Your task to perform on an android device: Open calendar and show me the fourth week of next month Image 0: 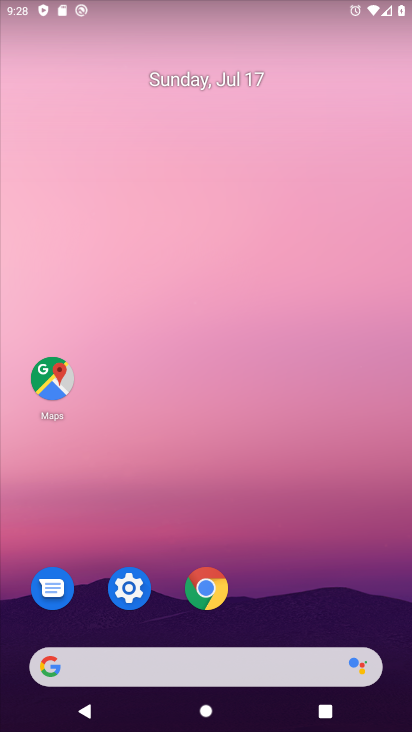
Step 0: drag from (255, 649) to (185, 109)
Your task to perform on an android device: Open calendar and show me the fourth week of next month Image 1: 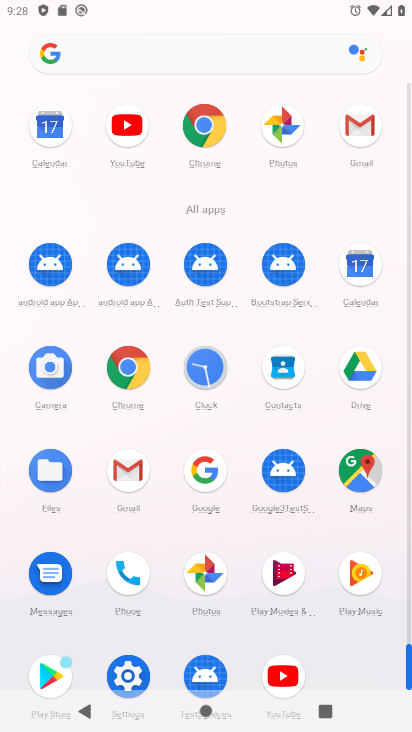
Step 1: click (357, 263)
Your task to perform on an android device: Open calendar and show me the fourth week of next month Image 2: 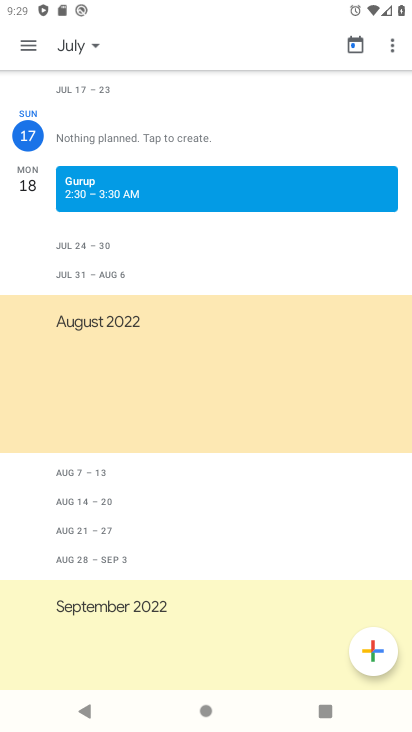
Step 2: click (90, 51)
Your task to perform on an android device: Open calendar and show me the fourth week of next month Image 3: 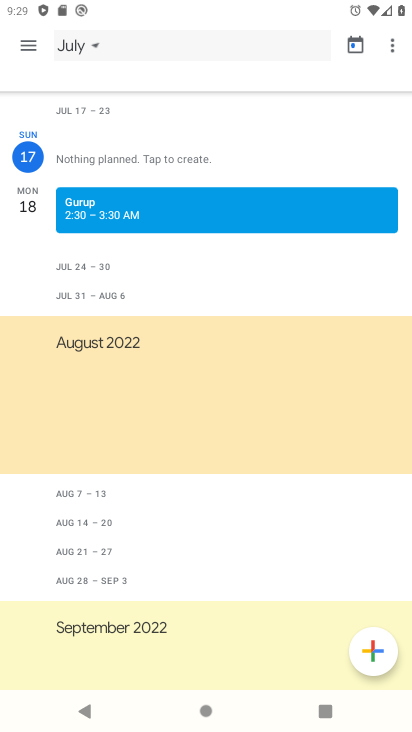
Step 3: click (91, 48)
Your task to perform on an android device: Open calendar and show me the fourth week of next month Image 4: 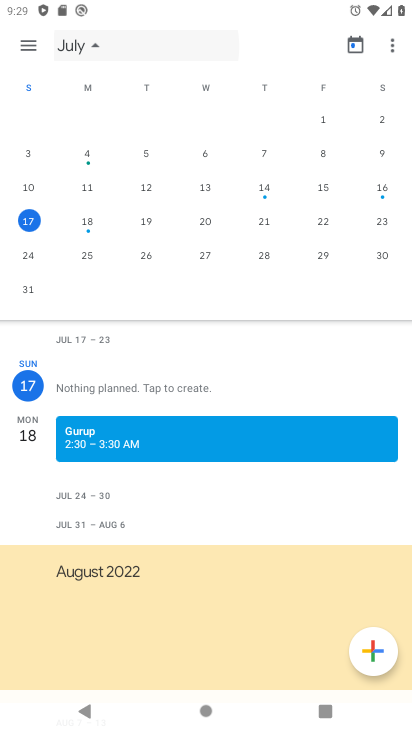
Step 4: click (92, 47)
Your task to perform on an android device: Open calendar and show me the fourth week of next month Image 5: 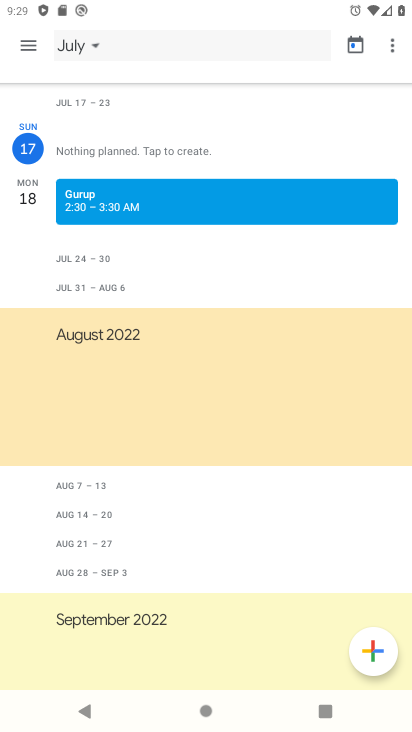
Step 5: click (93, 46)
Your task to perform on an android device: Open calendar and show me the fourth week of next month Image 6: 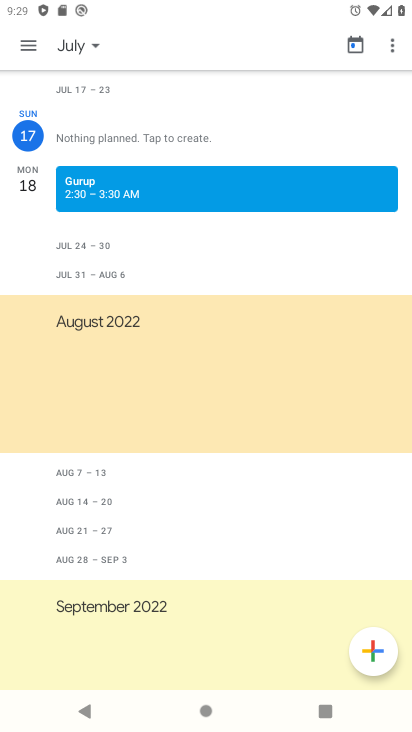
Step 6: click (90, 44)
Your task to perform on an android device: Open calendar and show me the fourth week of next month Image 7: 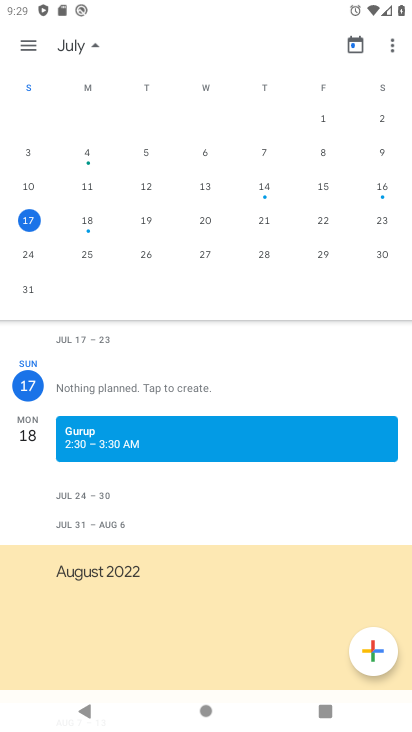
Step 7: drag from (340, 199) to (27, 221)
Your task to perform on an android device: Open calendar and show me the fourth week of next month Image 8: 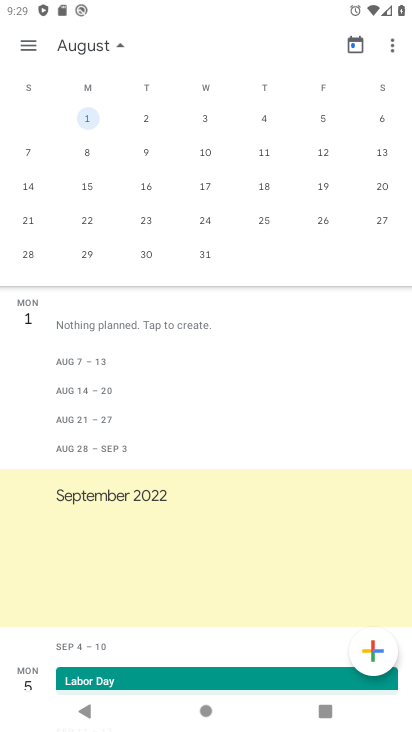
Step 8: click (144, 221)
Your task to perform on an android device: Open calendar and show me the fourth week of next month Image 9: 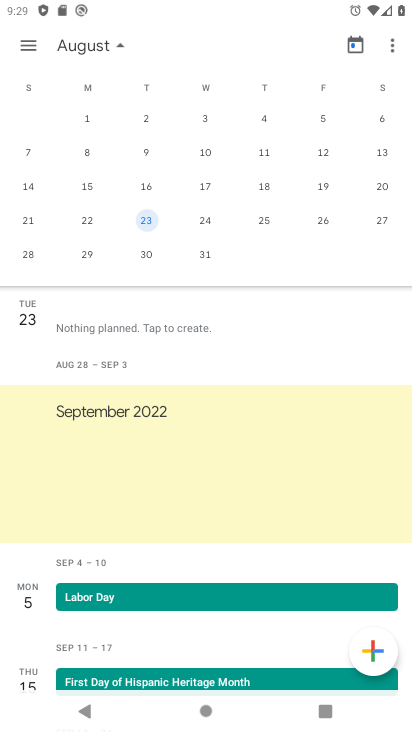
Step 9: click (143, 223)
Your task to perform on an android device: Open calendar and show me the fourth week of next month Image 10: 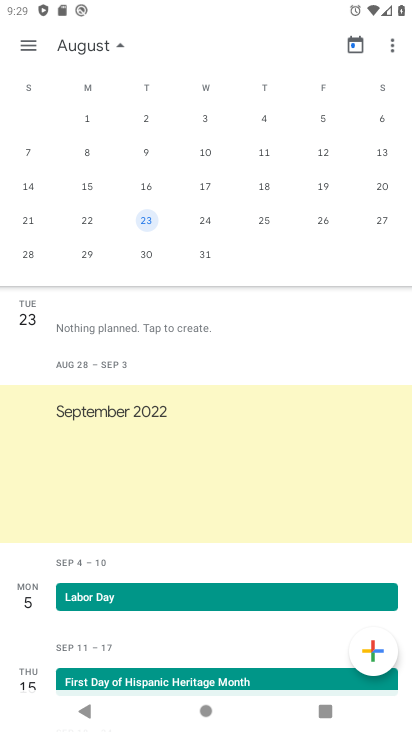
Step 10: task complete